Your task to perform on an android device: change notifications settings Image 0: 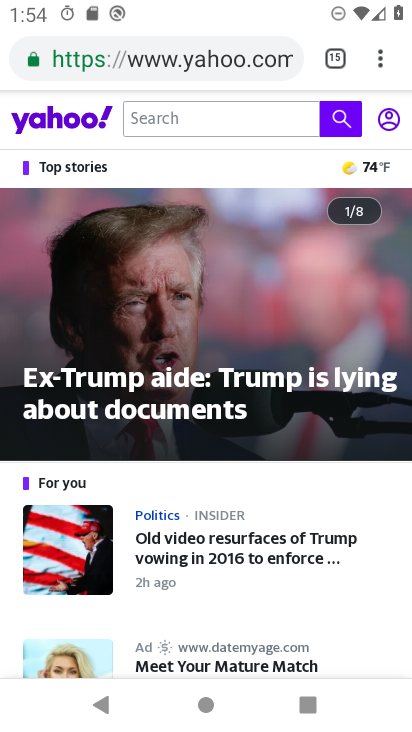
Step 0: press home button
Your task to perform on an android device: change notifications settings Image 1: 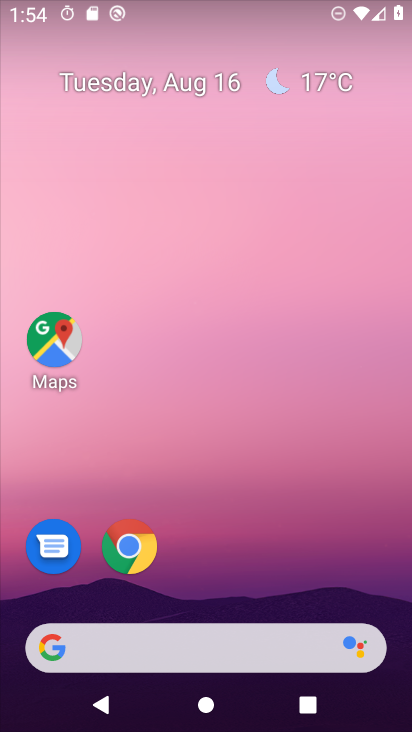
Step 1: drag from (234, 590) to (283, 68)
Your task to perform on an android device: change notifications settings Image 2: 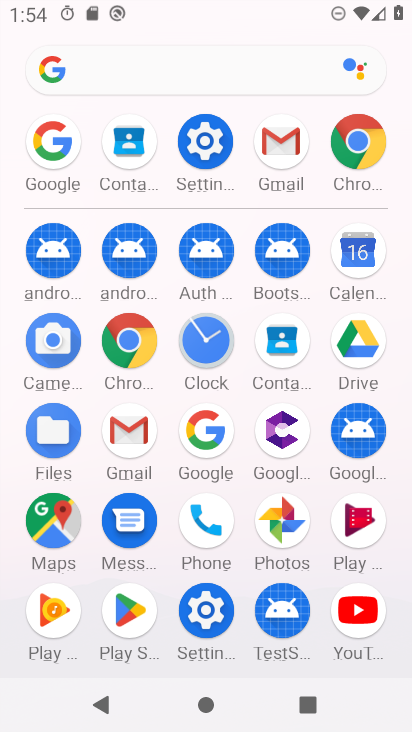
Step 2: click (197, 145)
Your task to perform on an android device: change notifications settings Image 3: 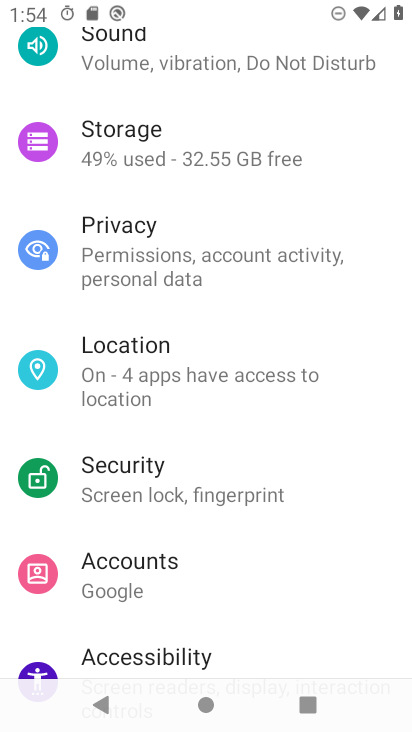
Step 3: drag from (161, 138) to (189, 515)
Your task to perform on an android device: change notifications settings Image 4: 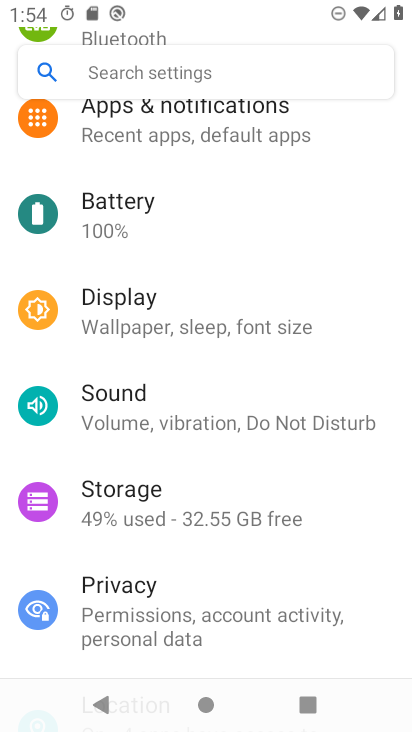
Step 4: drag from (132, 159) to (163, 470)
Your task to perform on an android device: change notifications settings Image 5: 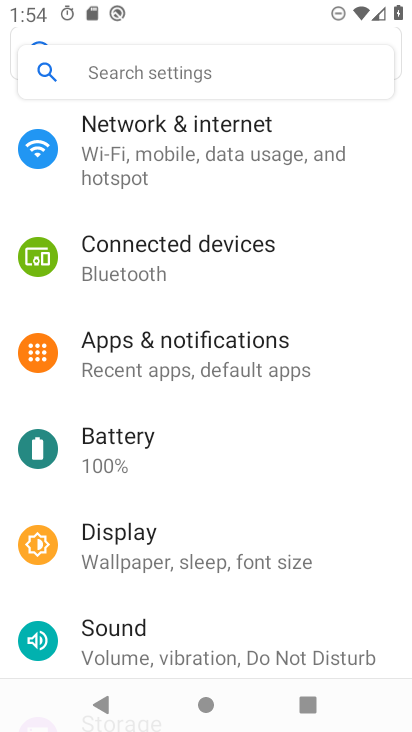
Step 5: click (167, 351)
Your task to perform on an android device: change notifications settings Image 6: 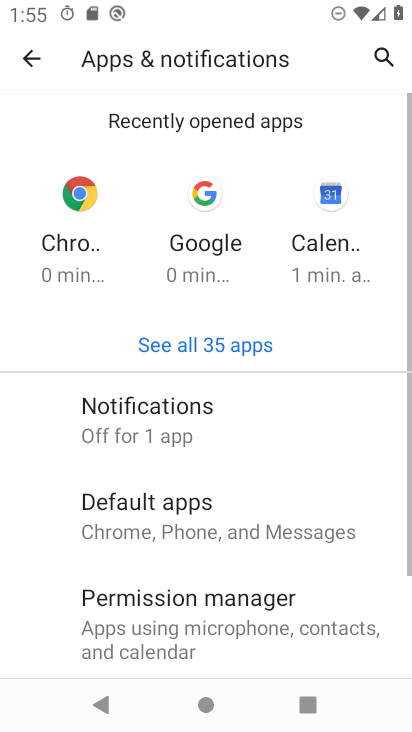
Step 6: click (154, 407)
Your task to perform on an android device: change notifications settings Image 7: 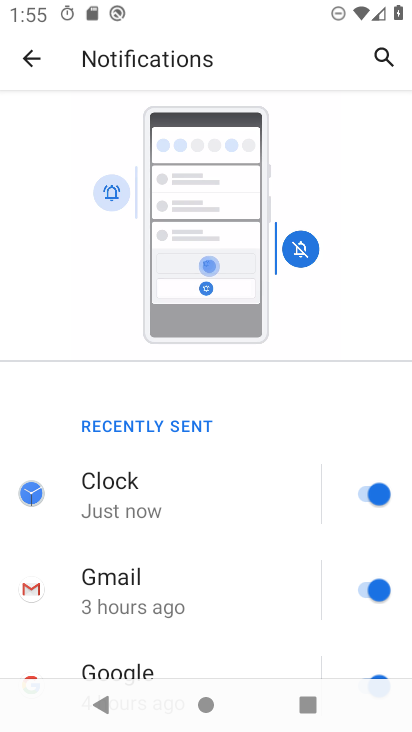
Step 7: drag from (136, 665) to (131, 338)
Your task to perform on an android device: change notifications settings Image 8: 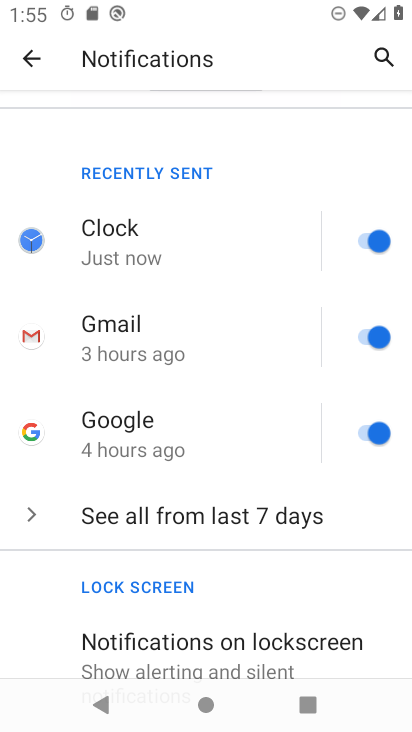
Step 8: drag from (160, 591) to (224, 375)
Your task to perform on an android device: change notifications settings Image 9: 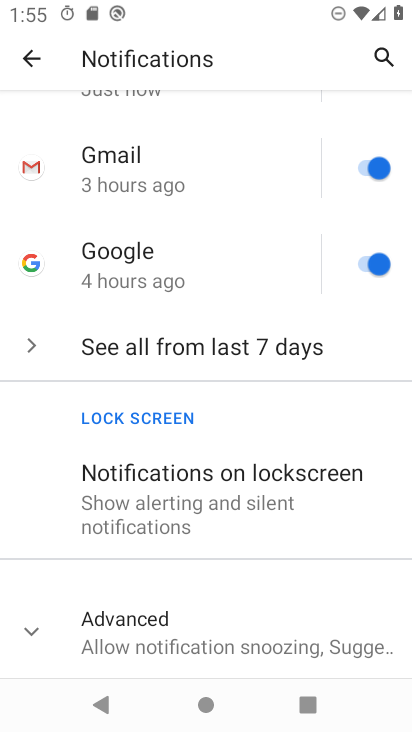
Step 9: click (157, 619)
Your task to perform on an android device: change notifications settings Image 10: 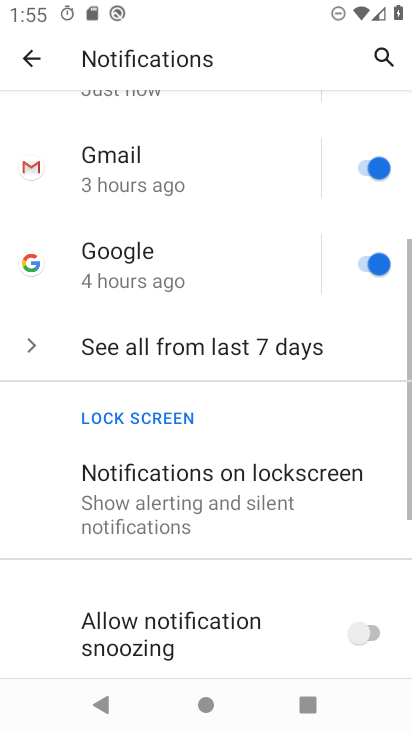
Step 10: click (350, 636)
Your task to perform on an android device: change notifications settings Image 11: 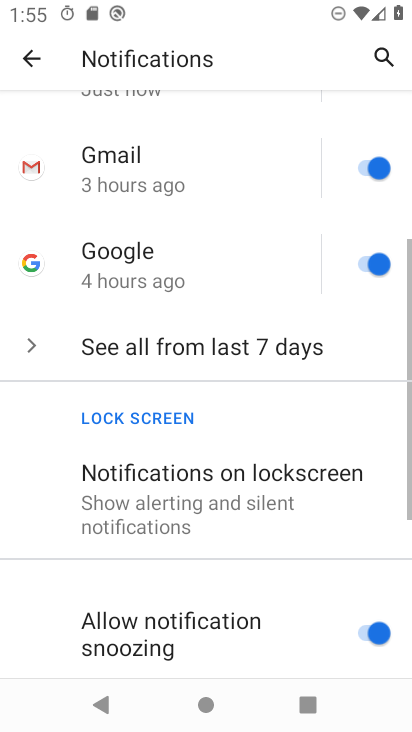
Step 11: task complete